Your task to perform on an android device: turn notification dots on Image 0: 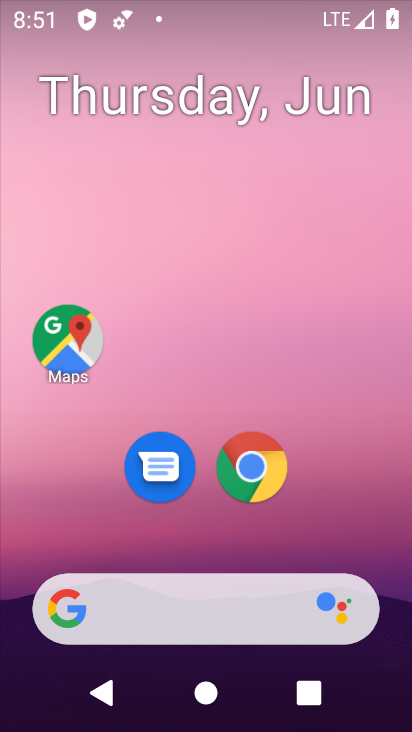
Step 0: drag from (100, 560) to (232, 127)
Your task to perform on an android device: turn notification dots on Image 1: 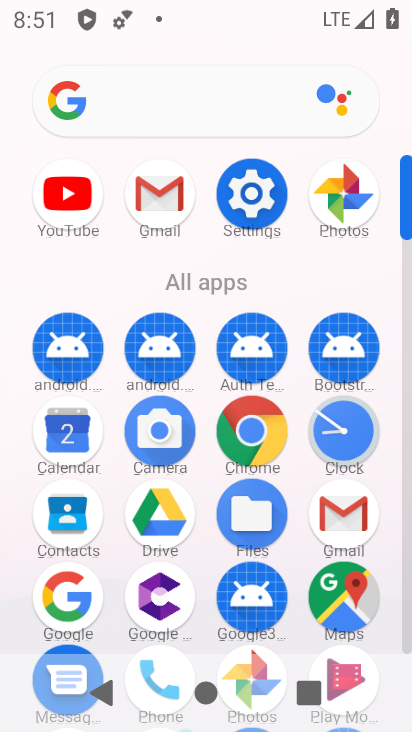
Step 1: drag from (194, 605) to (266, 359)
Your task to perform on an android device: turn notification dots on Image 2: 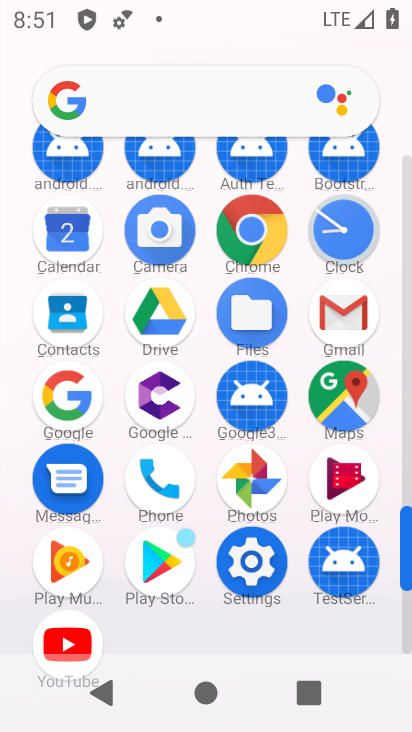
Step 2: click (239, 568)
Your task to perform on an android device: turn notification dots on Image 3: 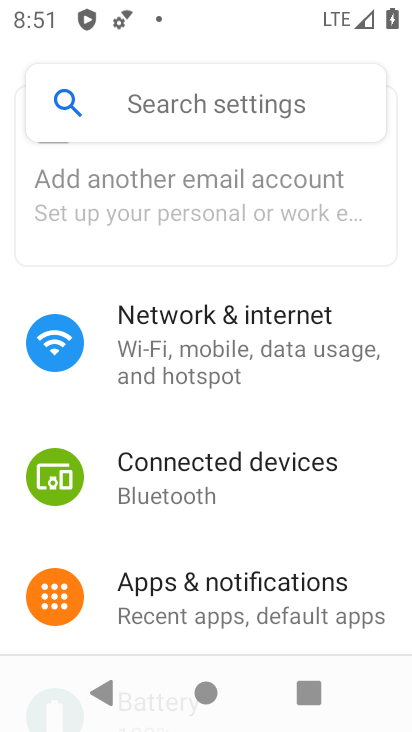
Step 3: drag from (206, 587) to (289, 275)
Your task to perform on an android device: turn notification dots on Image 4: 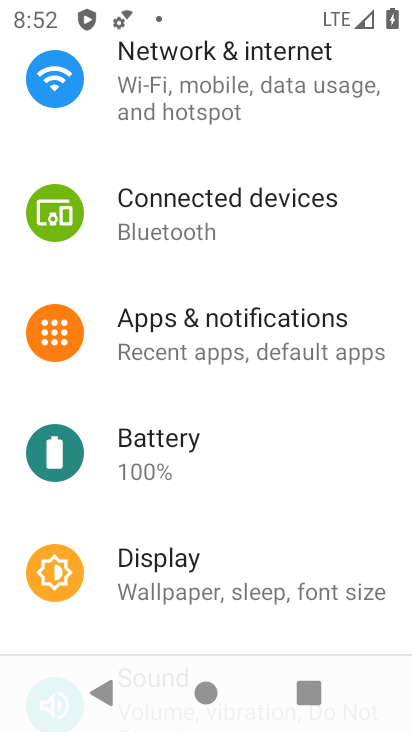
Step 4: click (283, 335)
Your task to perform on an android device: turn notification dots on Image 5: 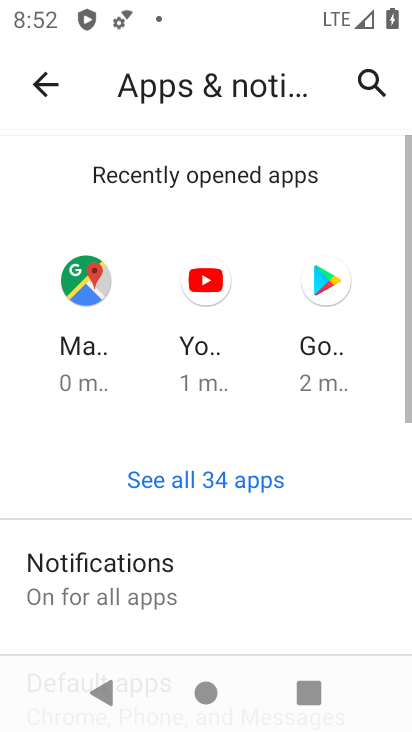
Step 5: drag from (260, 579) to (332, 278)
Your task to perform on an android device: turn notification dots on Image 6: 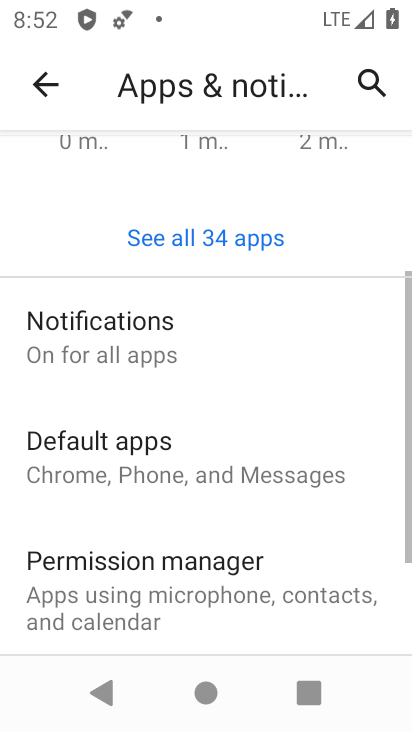
Step 6: drag from (277, 409) to (355, 231)
Your task to perform on an android device: turn notification dots on Image 7: 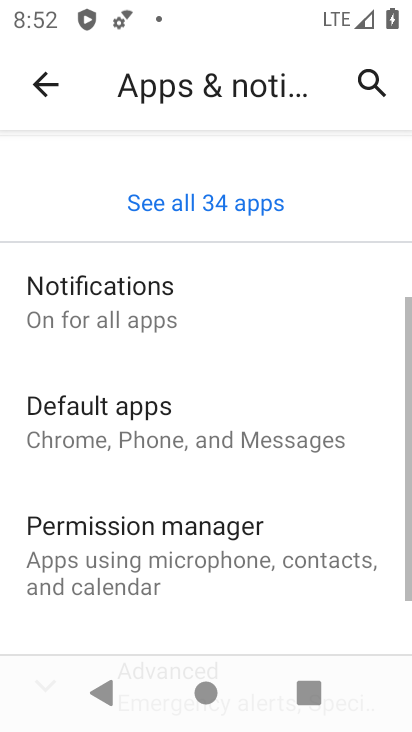
Step 7: drag from (293, 243) to (317, 200)
Your task to perform on an android device: turn notification dots on Image 8: 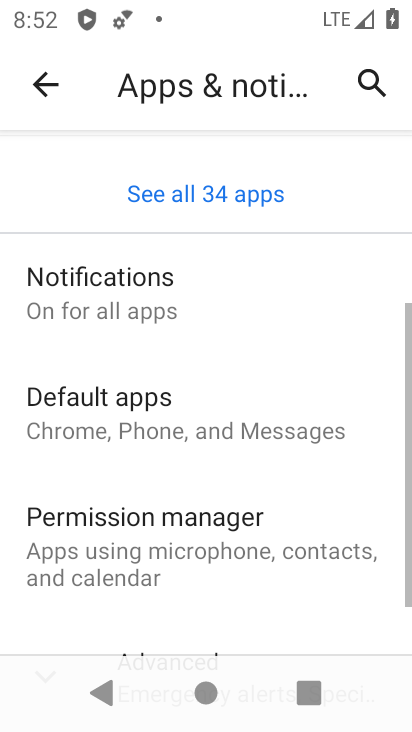
Step 8: click (221, 296)
Your task to perform on an android device: turn notification dots on Image 9: 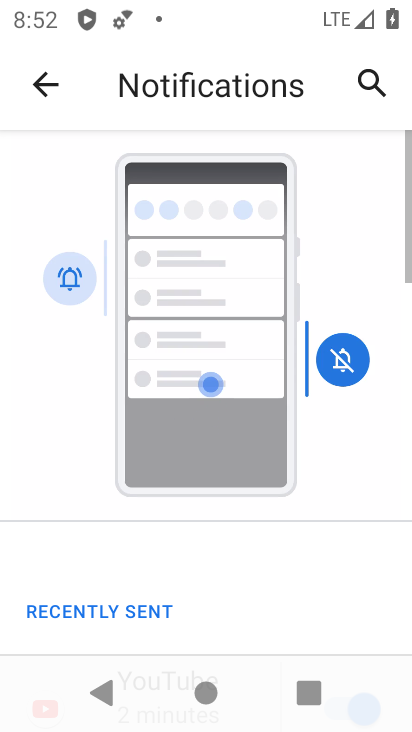
Step 9: drag from (236, 494) to (350, 96)
Your task to perform on an android device: turn notification dots on Image 10: 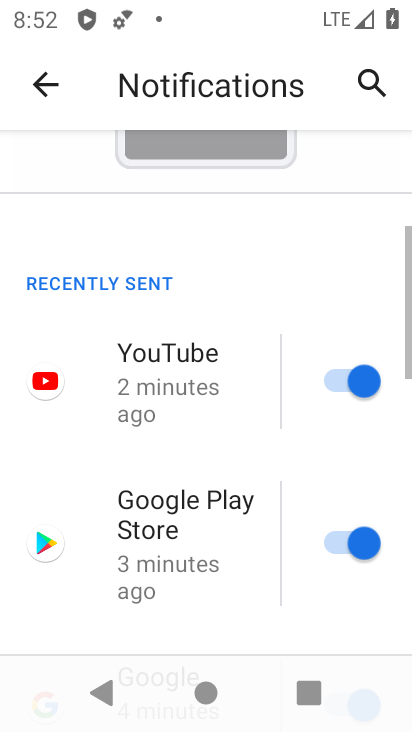
Step 10: drag from (217, 536) to (343, 154)
Your task to perform on an android device: turn notification dots on Image 11: 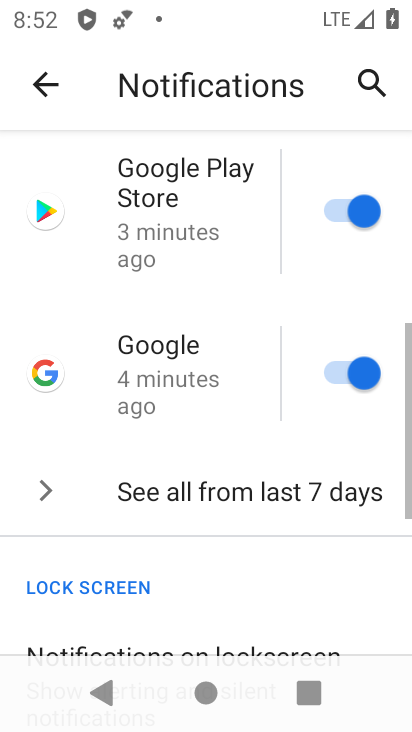
Step 11: drag from (264, 607) to (403, 220)
Your task to perform on an android device: turn notification dots on Image 12: 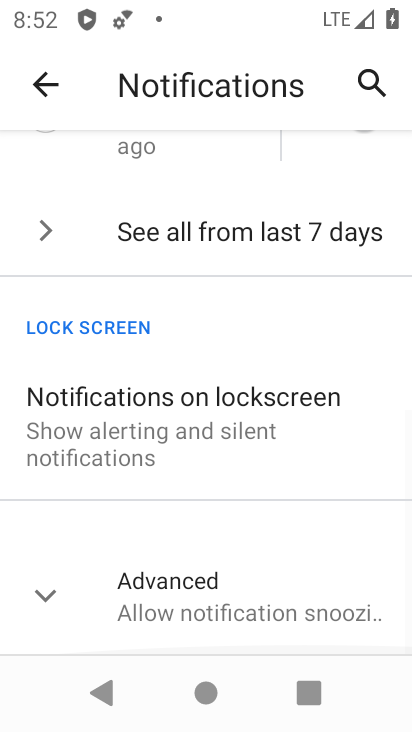
Step 12: click (237, 599)
Your task to perform on an android device: turn notification dots on Image 13: 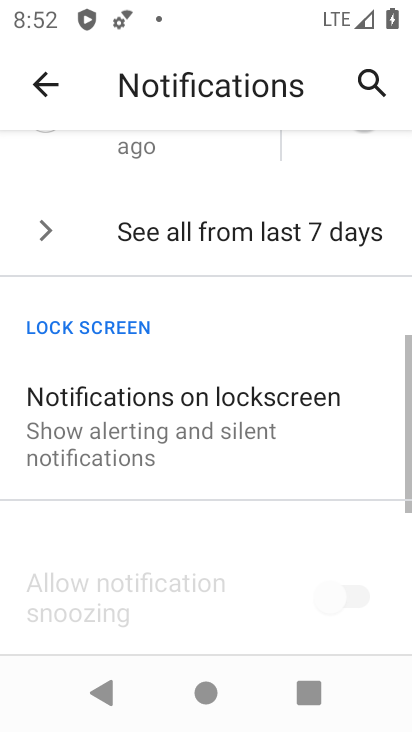
Step 13: click (384, 174)
Your task to perform on an android device: turn notification dots on Image 14: 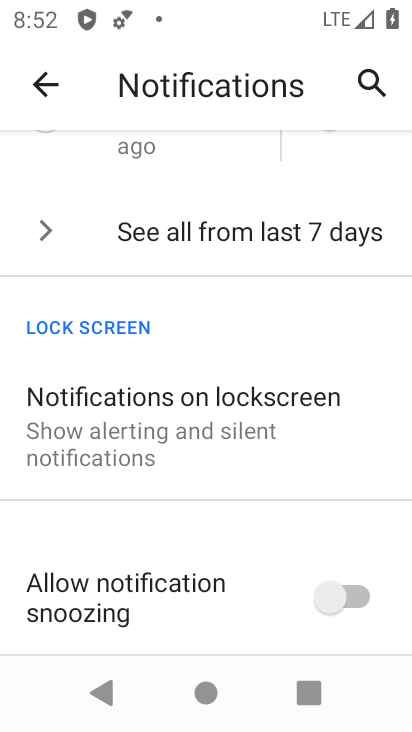
Step 14: task complete